Your task to perform on an android device: refresh tabs in the chrome app Image 0: 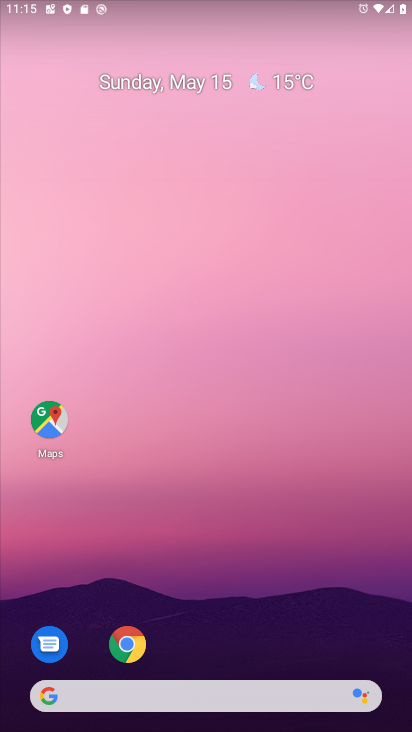
Step 0: click (134, 653)
Your task to perform on an android device: refresh tabs in the chrome app Image 1: 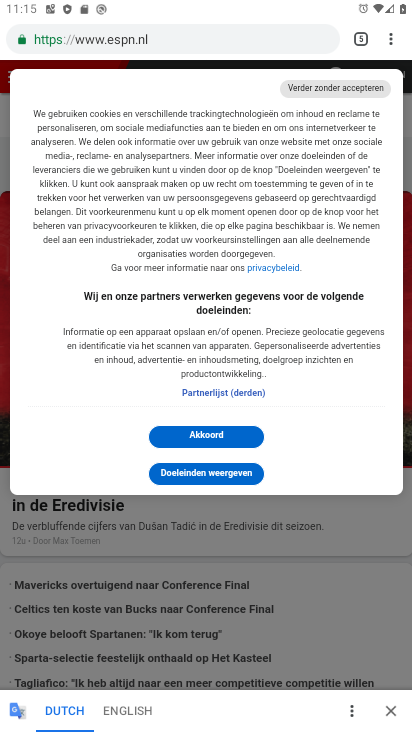
Step 1: click (389, 34)
Your task to perform on an android device: refresh tabs in the chrome app Image 2: 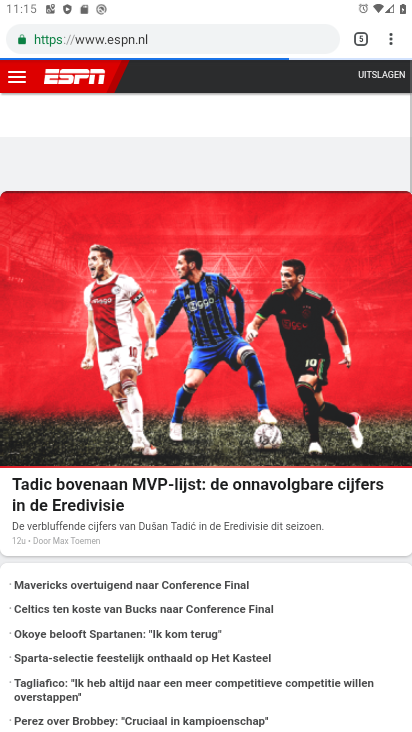
Step 2: click (389, 34)
Your task to perform on an android device: refresh tabs in the chrome app Image 3: 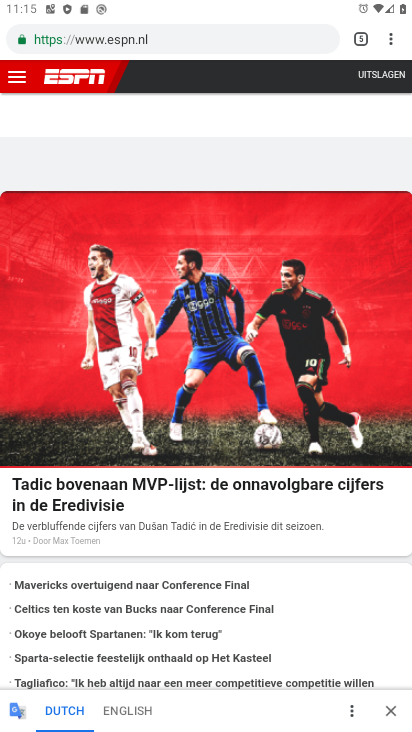
Step 3: task complete